Your task to perform on an android device: Is it going to rain tomorrow? Image 0: 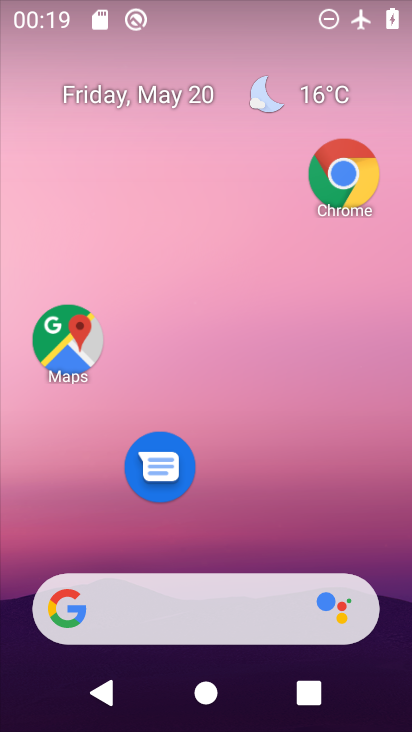
Step 0: drag from (257, 320) to (250, 228)
Your task to perform on an android device: Is it going to rain tomorrow? Image 1: 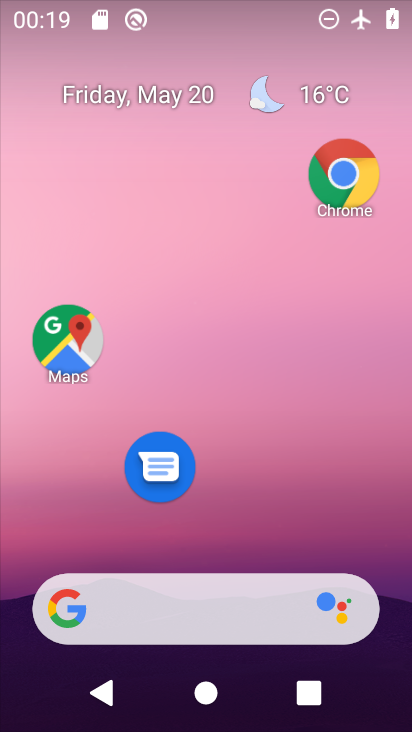
Step 1: click (332, 179)
Your task to perform on an android device: Is it going to rain tomorrow? Image 2: 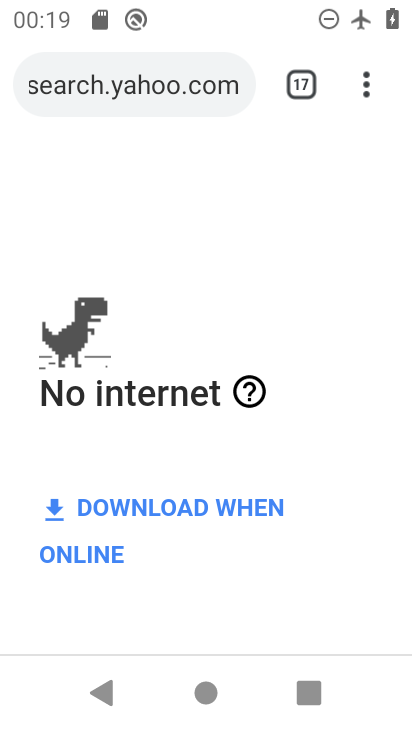
Step 2: click (372, 80)
Your task to perform on an android device: Is it going to rain tomorrow? Image 3: 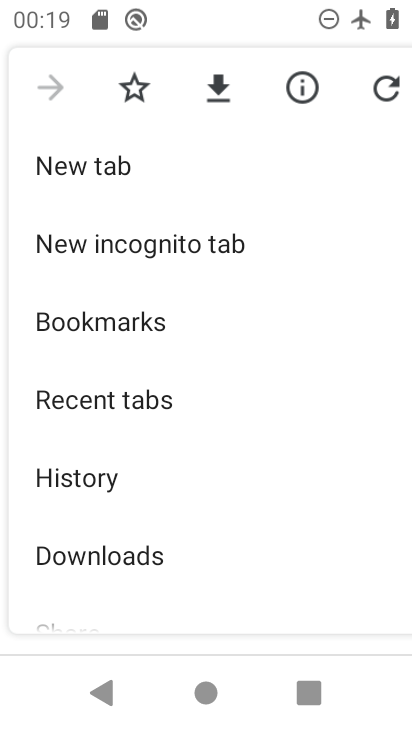
Step 3: click (168, 169)
Your task to perform on an android device: Is it going to rain tomorrow? Image 4: 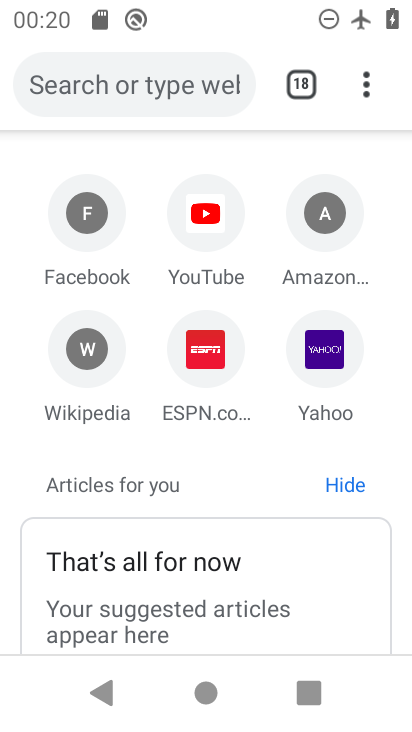
Step 4: click (175, 87)
Your task to perform on an android device: Is it going to rain tomorrow? Image 5: 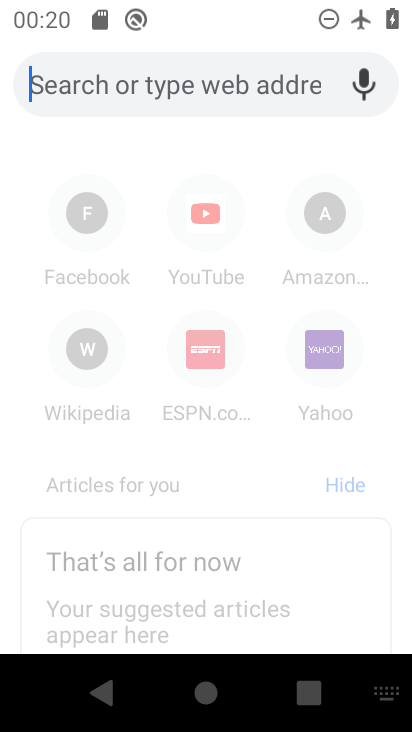
Step 5: type "Is it going to rain tomorrow?"
Your task to perform on an android device: Is it going to rain tomorrow? Image 6: 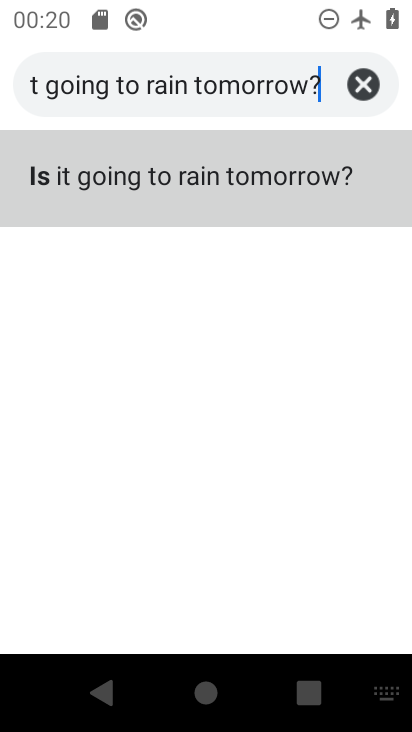
Step 6: click (258, 157)
Your task to perform on an android device: Is it going to rain tomorrow? Image 7: 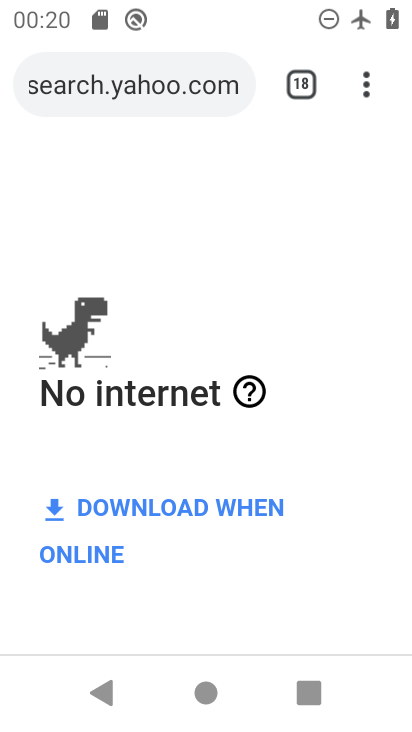
Step 7: task complete